Your task to perform on an android device: Open internet settings Image 0: 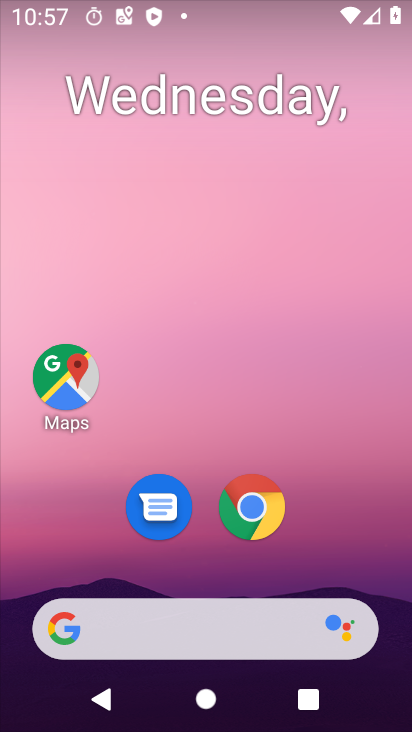
Step 0: drag from (235, 726) to (224, 51)
Your task to perform on an android device: Open internet settings Image 1: 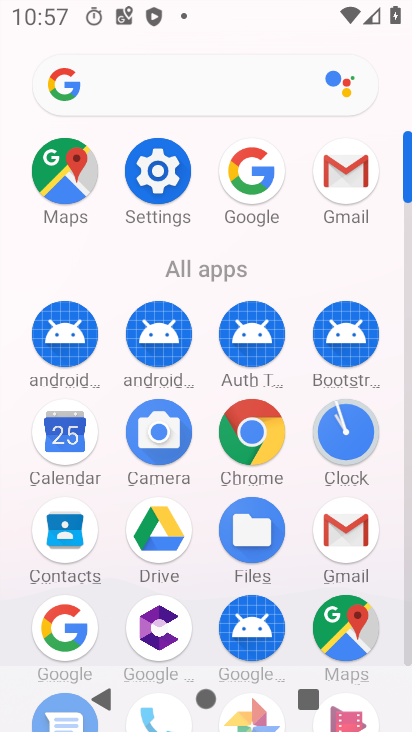
Step 1: click (164, 167)
Your task to perform on an android device: Open internet settings Image 2: 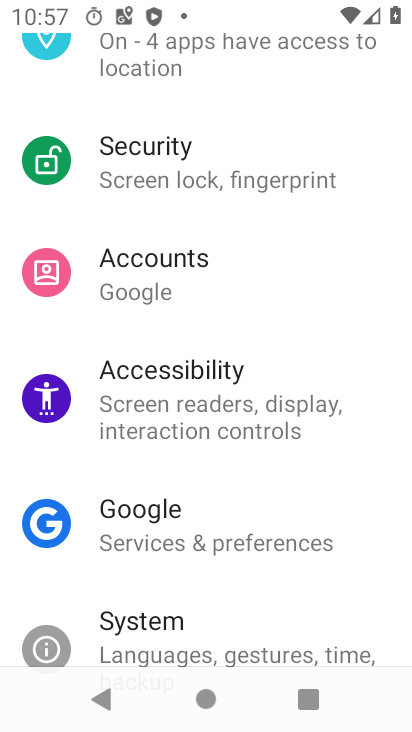
Step 2: drag from (189, 123) to (201, 438)
Your task to perform on an android device: Open internet settings Image 3: 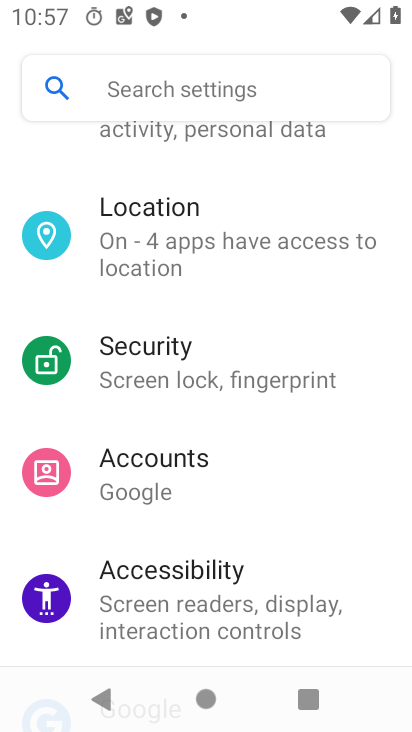
Step 3: drag from (245, 177) to (241, 645)
Your task to perform on an android device: Open internet settings Image 4: 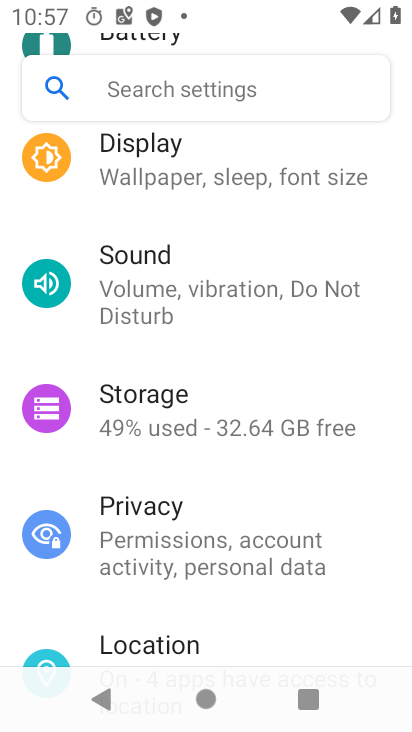
Step 4: drag from (239, 183) to (242, 631)
Your task to perform on an android device: Open internet settings Image 5: 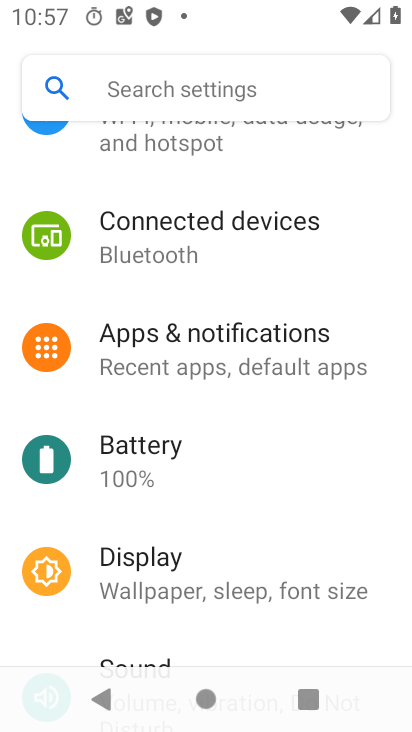
Step 5: drag from (189, 192) to (202, 597)
Your task to perform on an android device: Open internet settings Image 6: 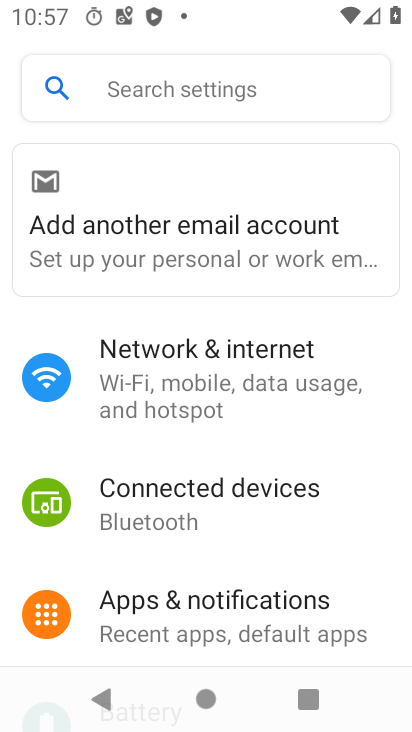
Step 6: click (199, 359)
Your task to perform on an android device: Open internet settings Image 7: 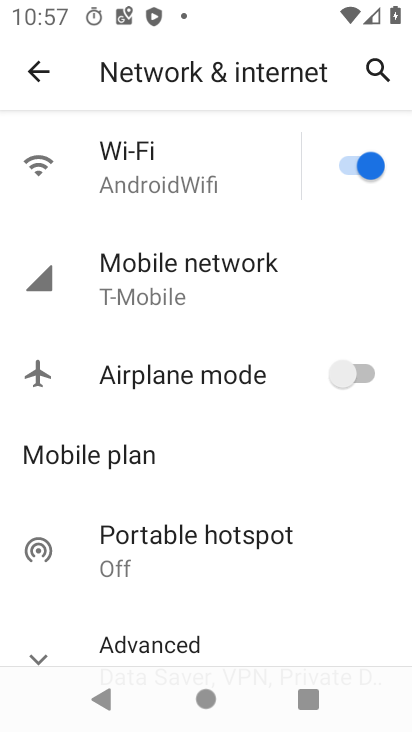
Step 7: click (155, 273)
Your task to perform on an android device: Open internet settings Image 8: 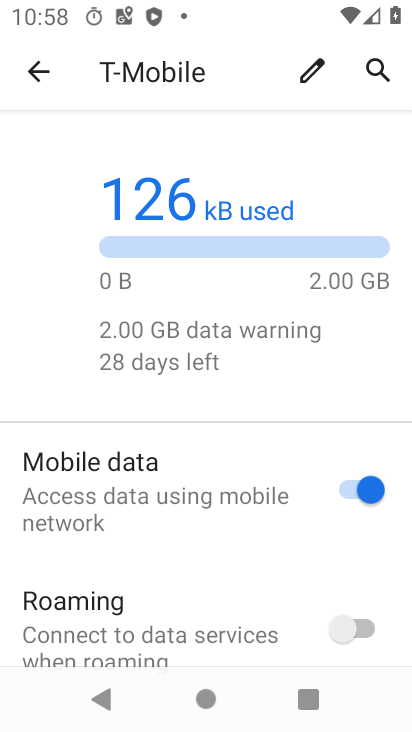
Step 8: task complete